Your task to perform on an android device: show emergency info Image 0: 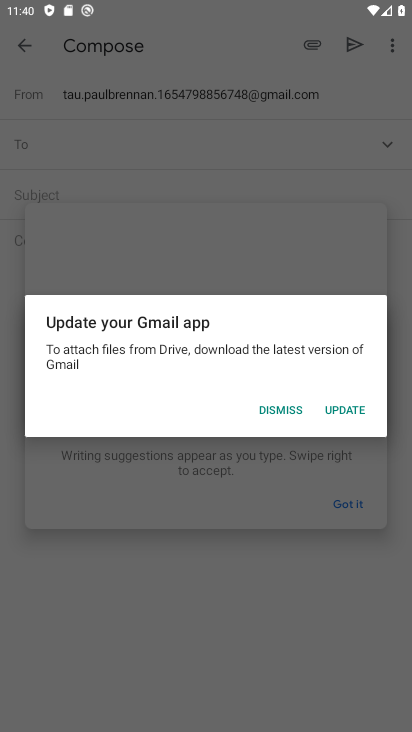
Step 0: press home button
Your task to perform on an android device: show emergency info Image 1: 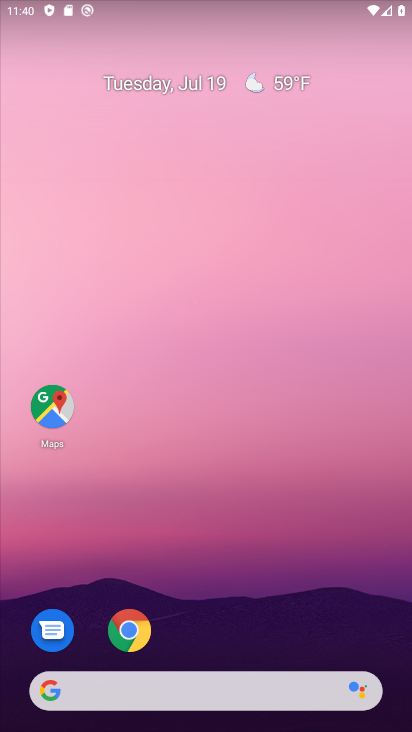
Step 1: drag from (267, 687) to (292, 42)
Your task to perform on an android device: show emergency info Image 2: 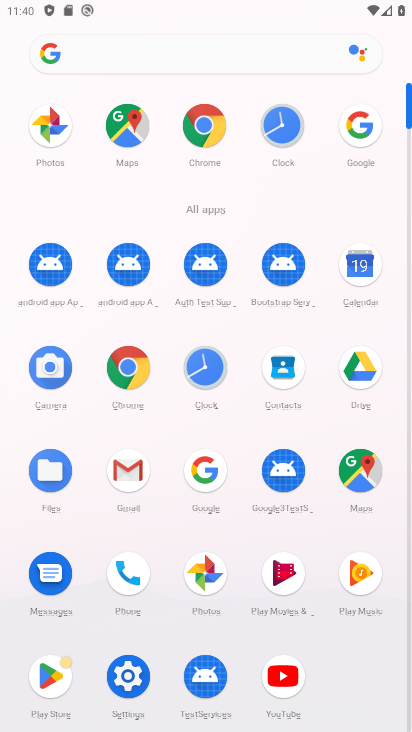
Step 2: click (145, 678)
Your task to perform on an android device: show emergency info Image 3: 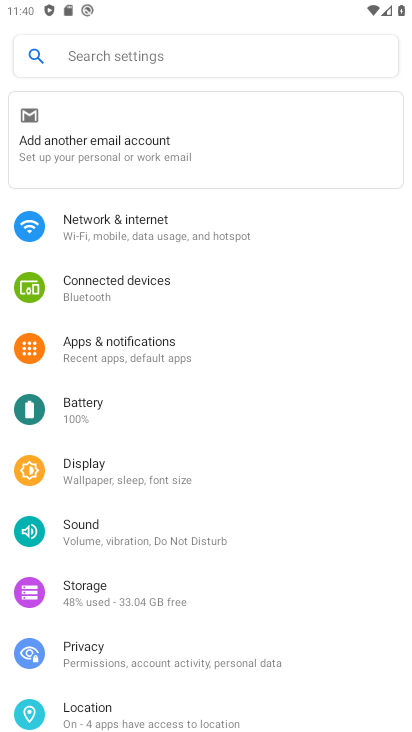
Step 3: drag from (210, 720) to (163, 146)
Your task to perform on an android device: show emergency info Image 4: 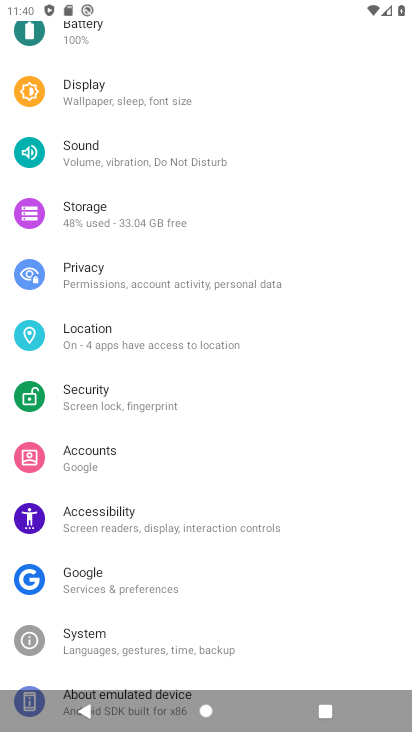
Step 4: drag from (205, 620) to (202, 572)
Your task to perform on an android device: show emergency info Image 5: 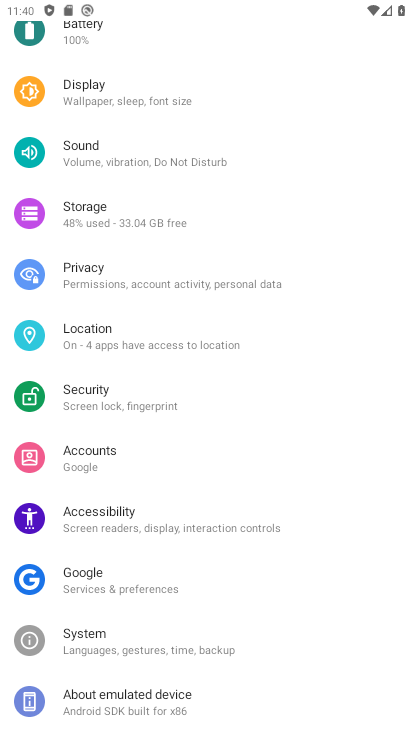
Step 5: click (200, 709)
Your task to perform on an android device: show emergency info Image 6: 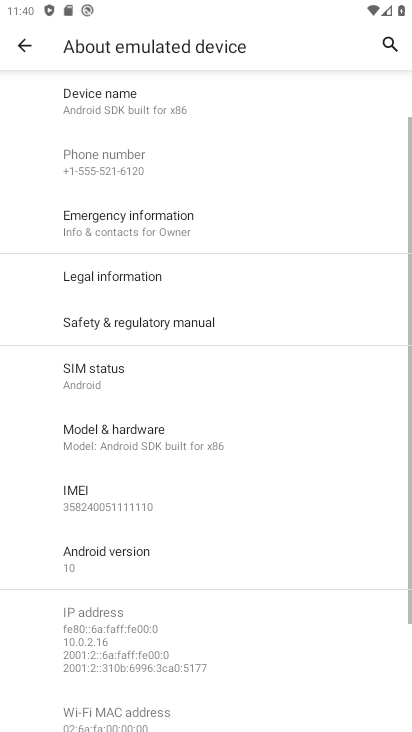
Step 6: task complete